Your task to perform on an android device: find snoozed emails in the gmail app Image 0: 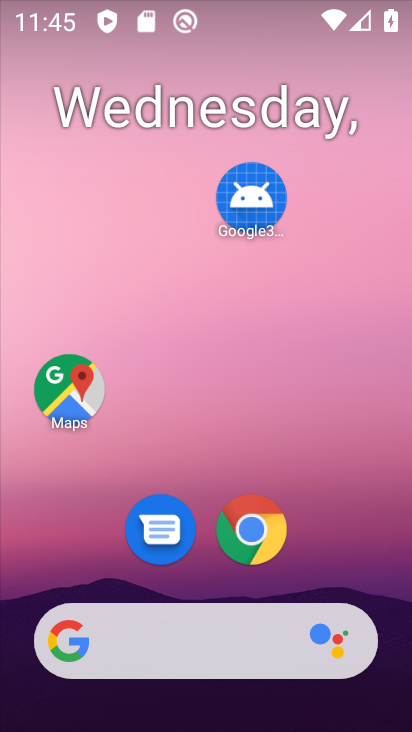
Step 0: drag from (71, 598) to (186, 153)
Your task to perform on an android device: find snoozed emails in the gmail app Image 1: 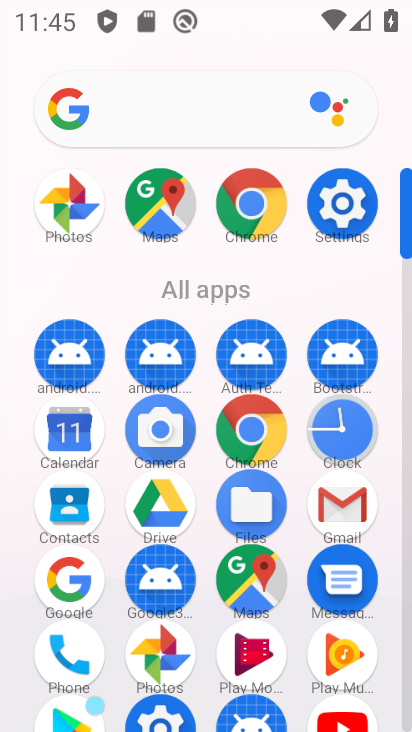
Step 1: click (355, 499)
Your task to perform on an android device: find snoozed emails in the gmail app Image 2: 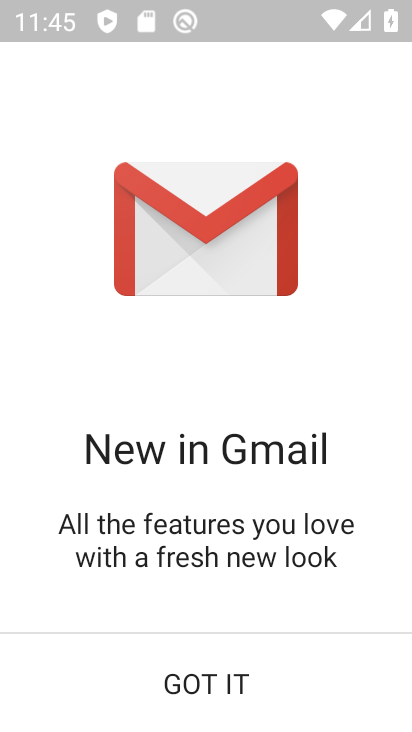
Step 2: click (265, 667)
Your task to perform on an android device: find snoozed emails in the gmail app Image 3: 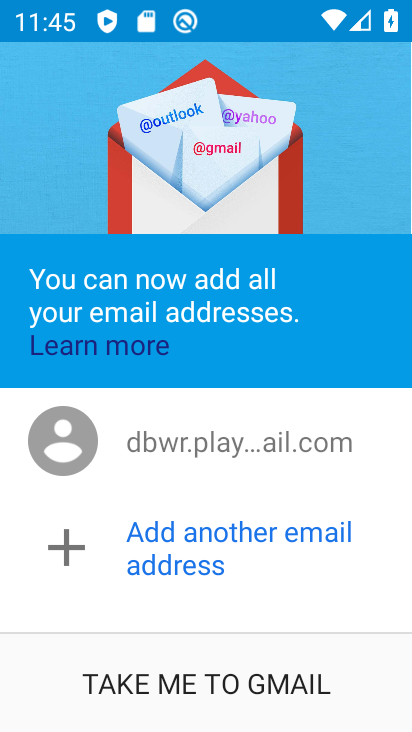
Step 3: click (265, 715)
Your task to perform on an android device: find snoozed emails in the gmail app Image 4: 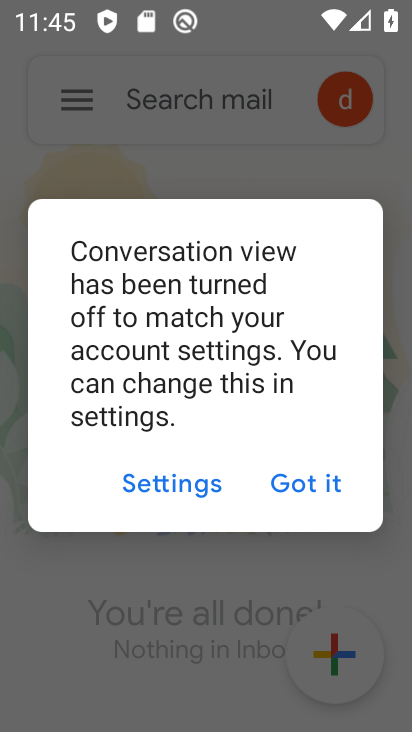
Step 4: click (309, 491)
Your task to perform on an android device: find snoozed emails in the gmail app Image 5: 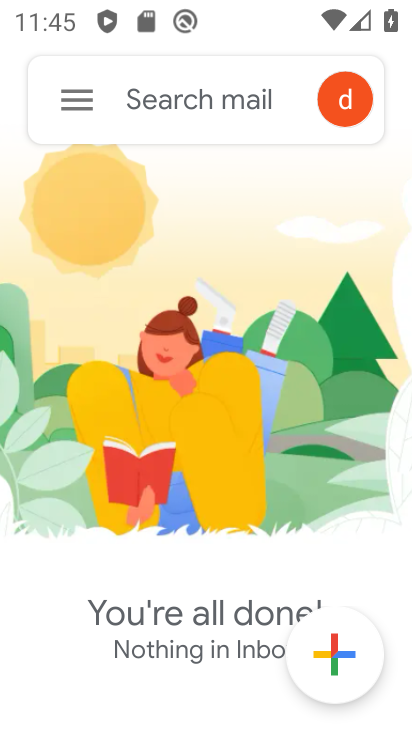
Step 5: click (81, 98)
Your task to perform on an android device: find snoozed emails in the gmail app Image 6: 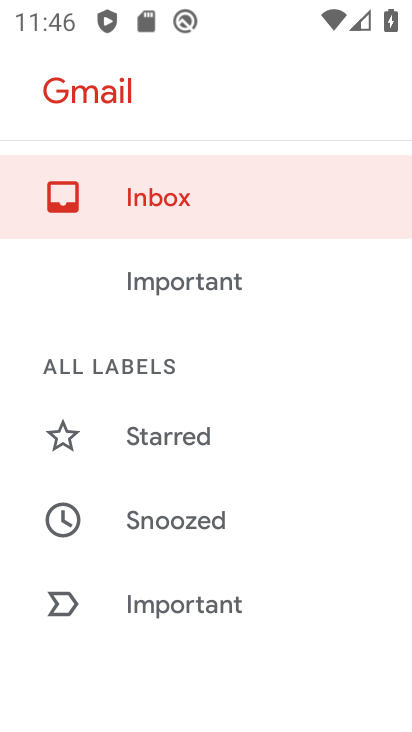
Step 6: click (226, 534)
Your task to perform on an android device: find snoozed emails in the gmail app Image 7: 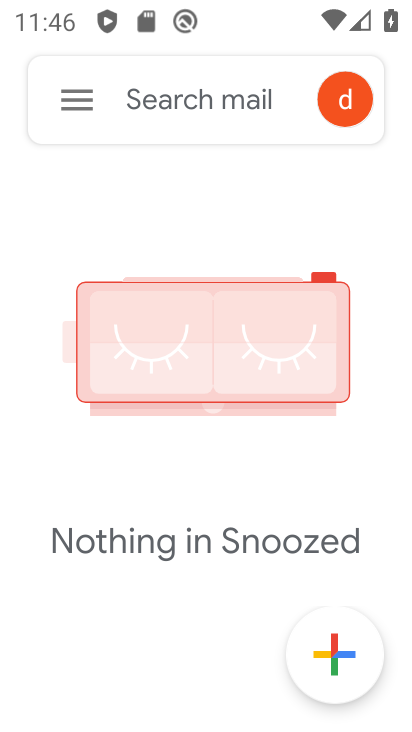
Step 7: task complete